Your task to perform on an android device: show emergency info Image 0: 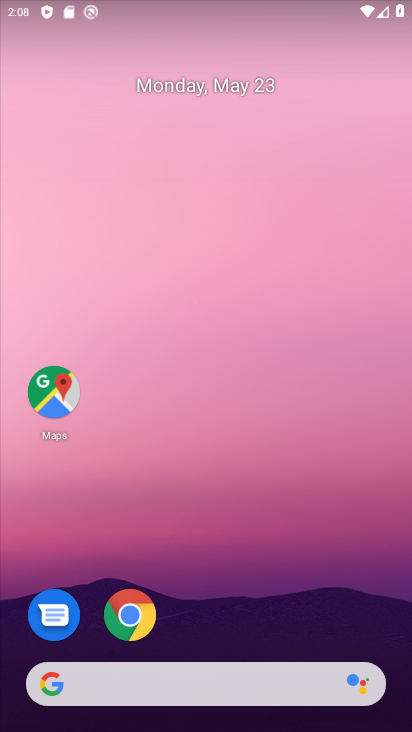
Step 0: drag from (242, 653) to (271, 3)
Your task to perform on an android device: show emergency info Image 1: 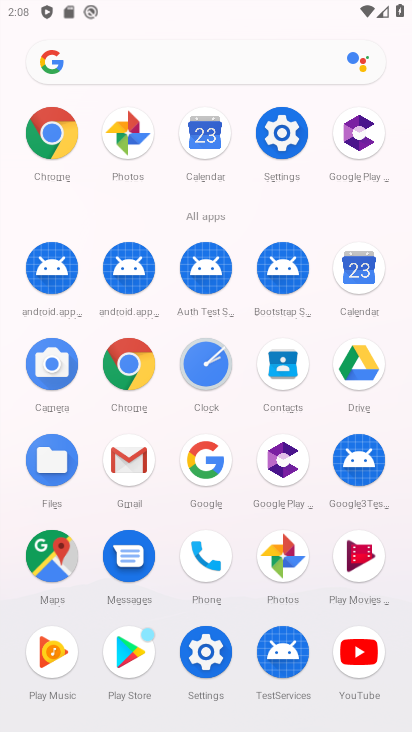
Step 1: click (284, 132)
Your task to perform on an android device: show emergency info Image 2: 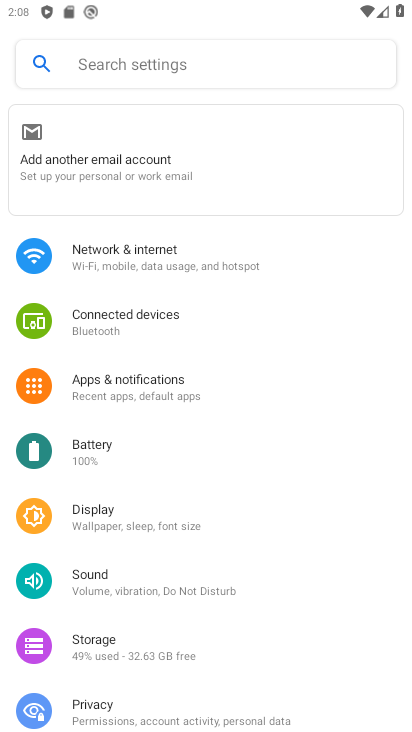
Step 2: drag from (235, 583) to (234, 57)
Your task to perform on an android device: show emergency info Image 3: 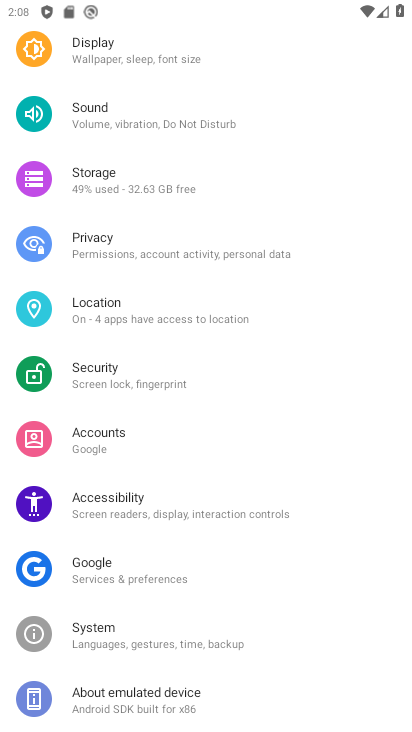
Step 3: drag from (201, 572) to (207, 89)
Your task to perform on an android device: show emergency info Image 4: 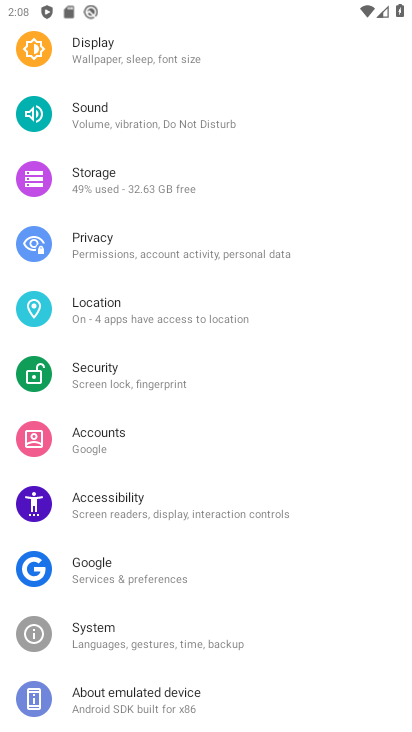
Step 4: drag from (166, 592) to (160, 254)
Your task to perform on an android device: show emergency info Image 5: 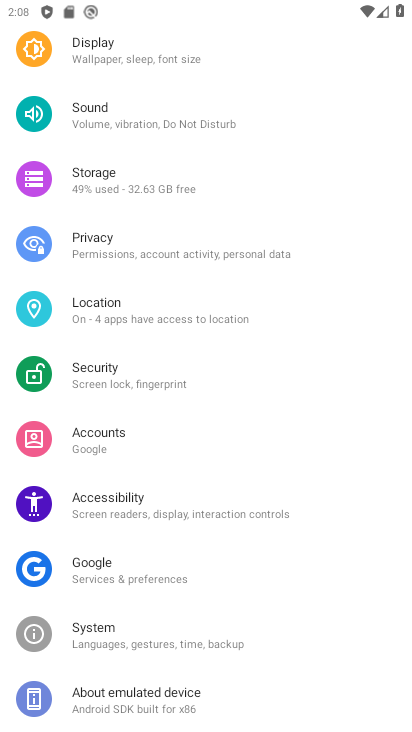
Step 5: click (130, 702)
Your task to perform on an android device: show emergency info Image 6: 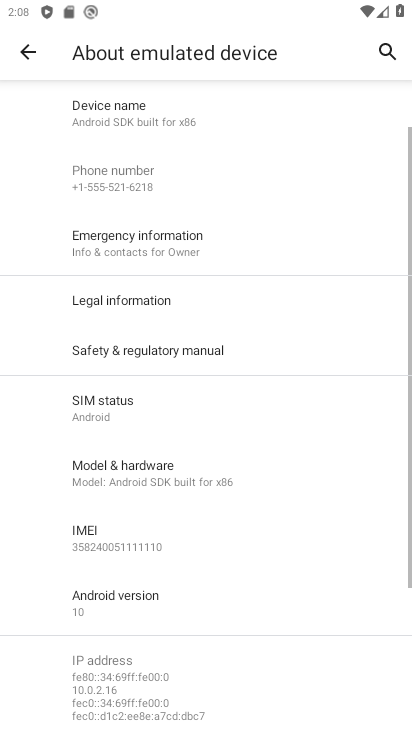
Step 6: click (113, 233)
Your task to perform on an android device: show emergency info Image 7: 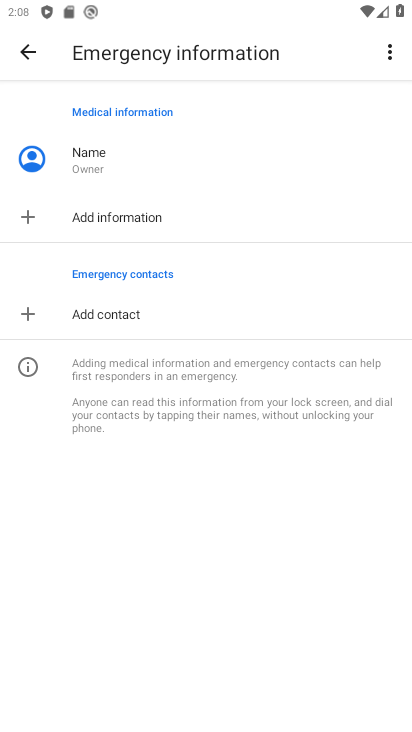
Step 7: task complete